Your task to perform on an android device: toggle data saver in the chrome app Image 0: 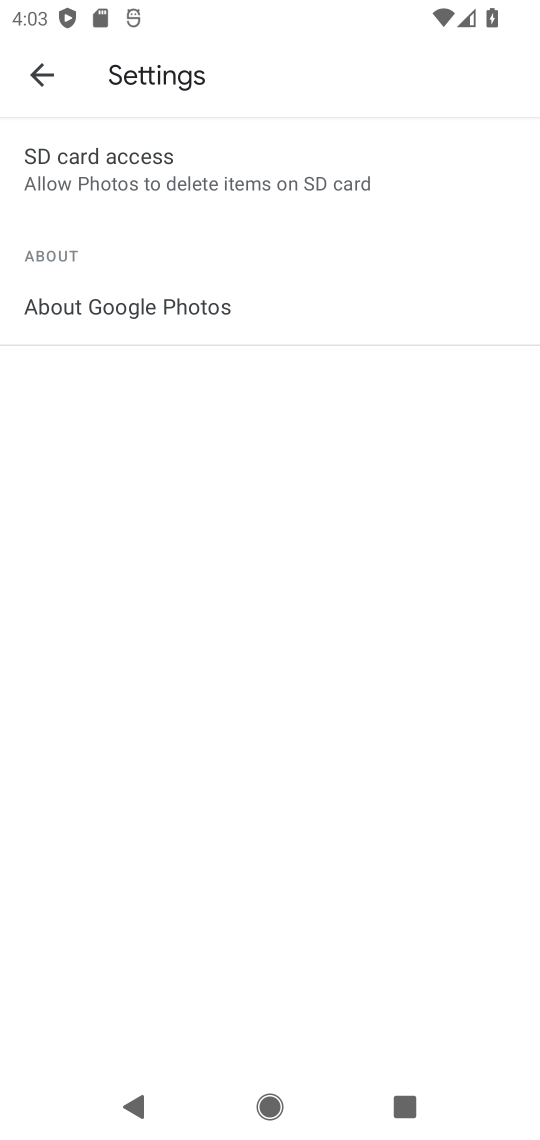
Step 0: press home button
Your task to perform on an android device: toggle data saver in the chrome app Image 1: 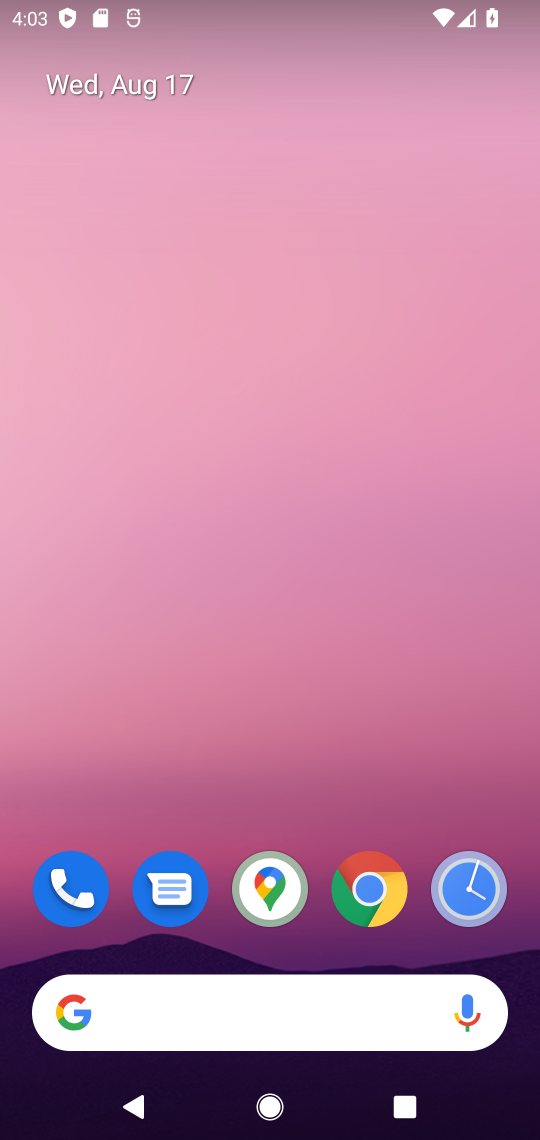
Step 1: click (373, 892)
Your task to perform on an android device: toggle data saver in the chrome app Image 2: 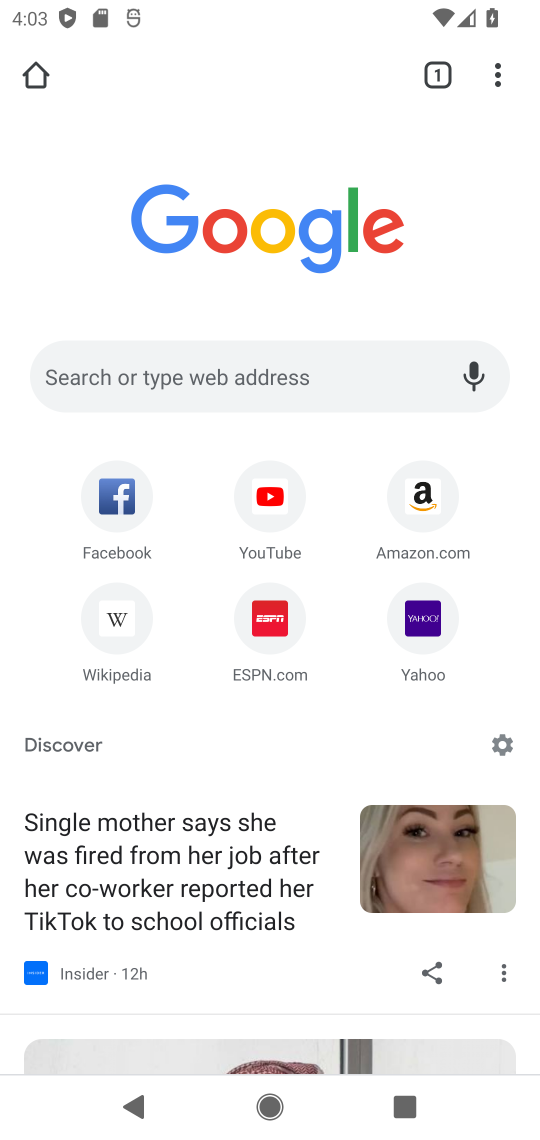
Step 2: click (500, 72)
Your task to perform on an android device: toggle data saver in the chrome app Image 3: 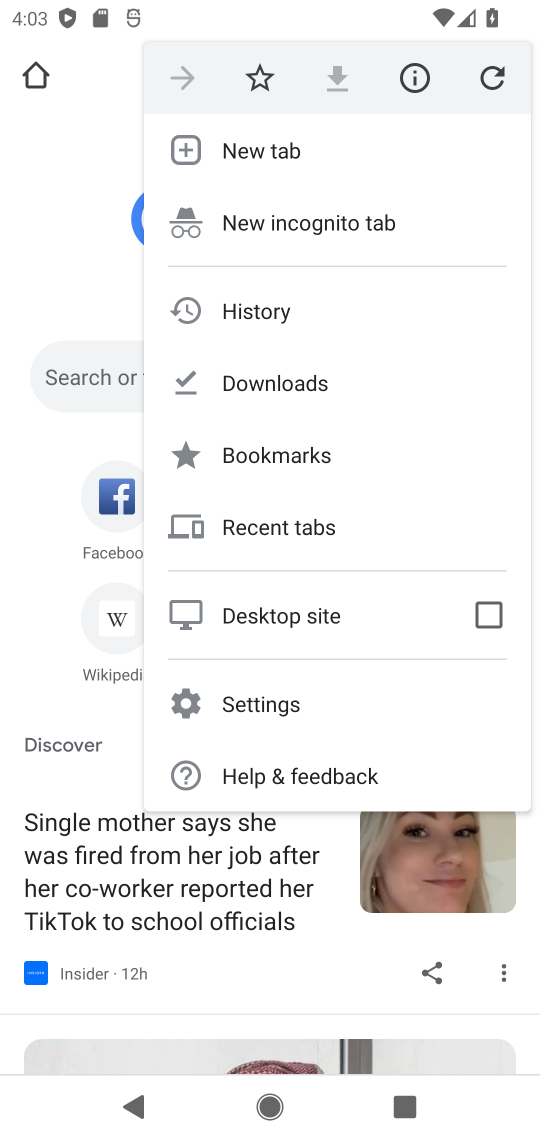
Step 3: click (266, 698)
Your task to perform on an android device: toggle data saver in the chrome app Image 4: 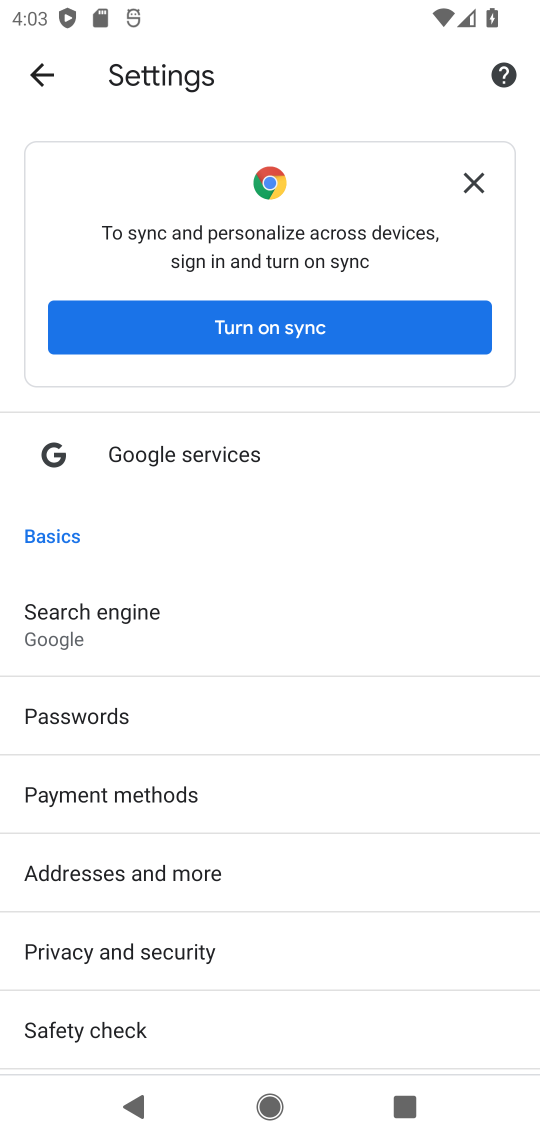
Step 4: drag from (294, 1034) to (235, 582)
Your task to perform on an android device: toggle data saver in the chrome app Image 5: 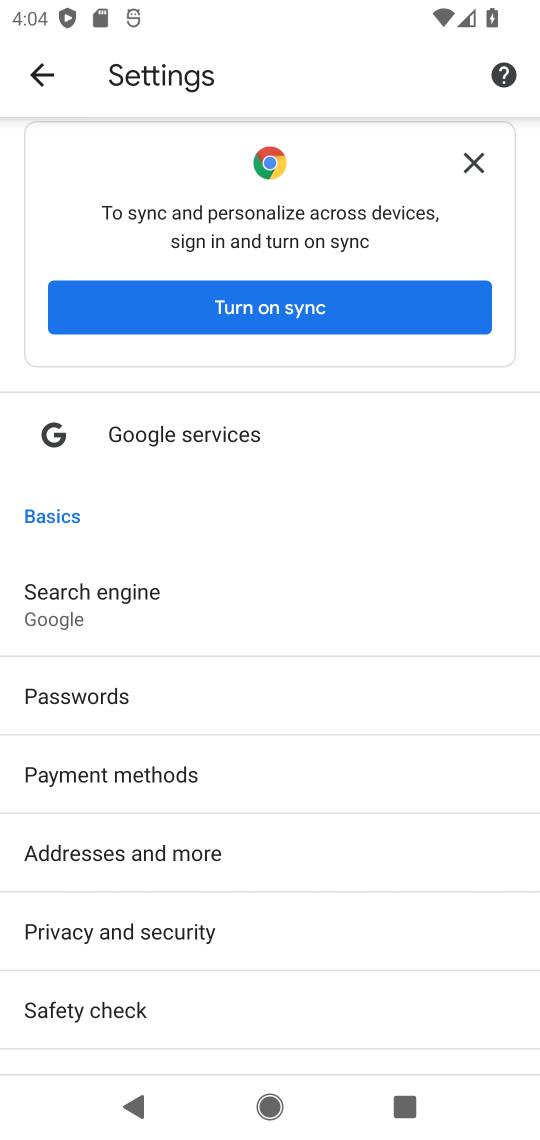
Step 5: drag from (341, 939) to (332, 322)
Your task to perform on an android device: toggle data saver in the chrome app Image 6: 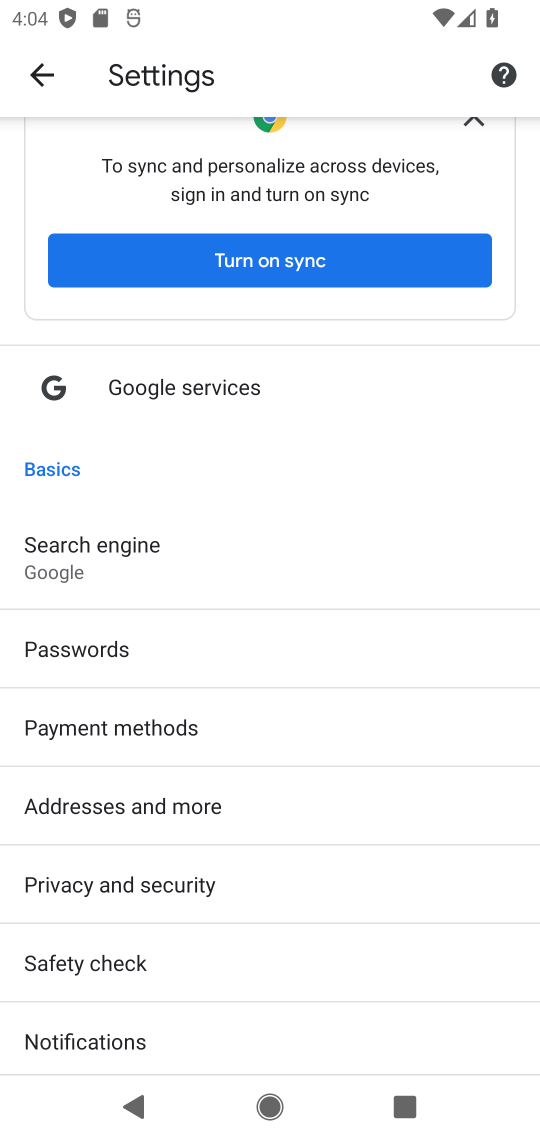
Step 6: drag from (257, 944) to (224, 315)
Your task to perform on an android device: toggle data saver in the chrome app Image 7: 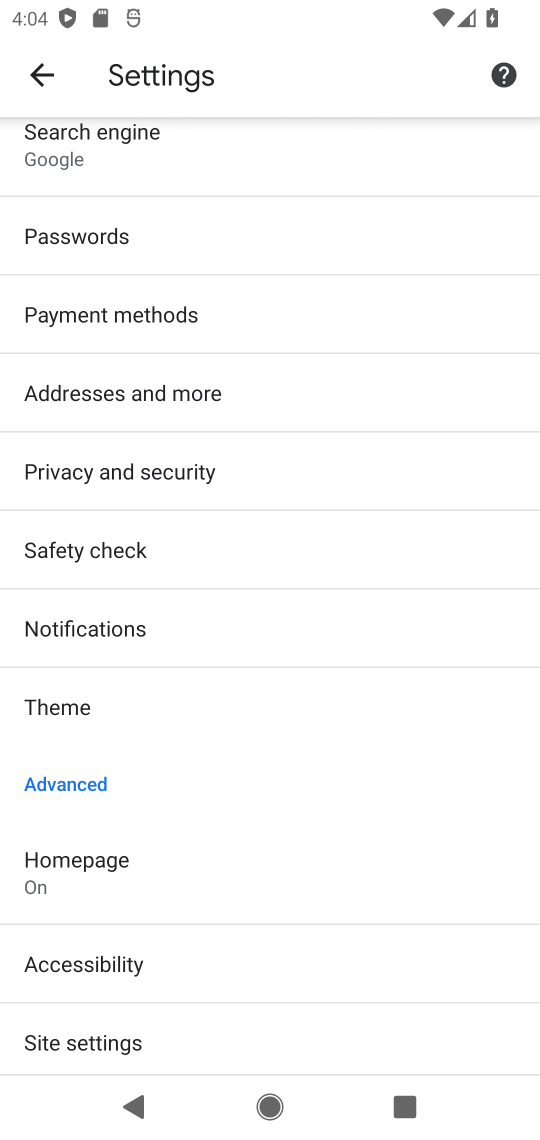
Step 7: drag from (233, 967) to (229, 333)
Your task to perform on an android device: toggle data saver in the chrome app Image 8: 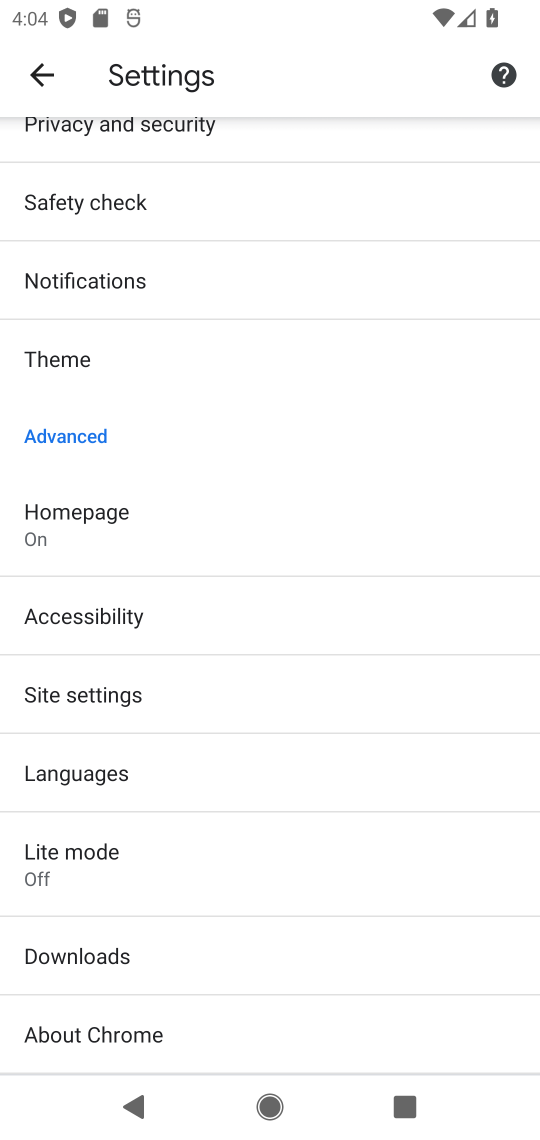
Step 8: click (63, 843)
Your task to perform on an android device: toggle data saver in the chrome app Image 9: 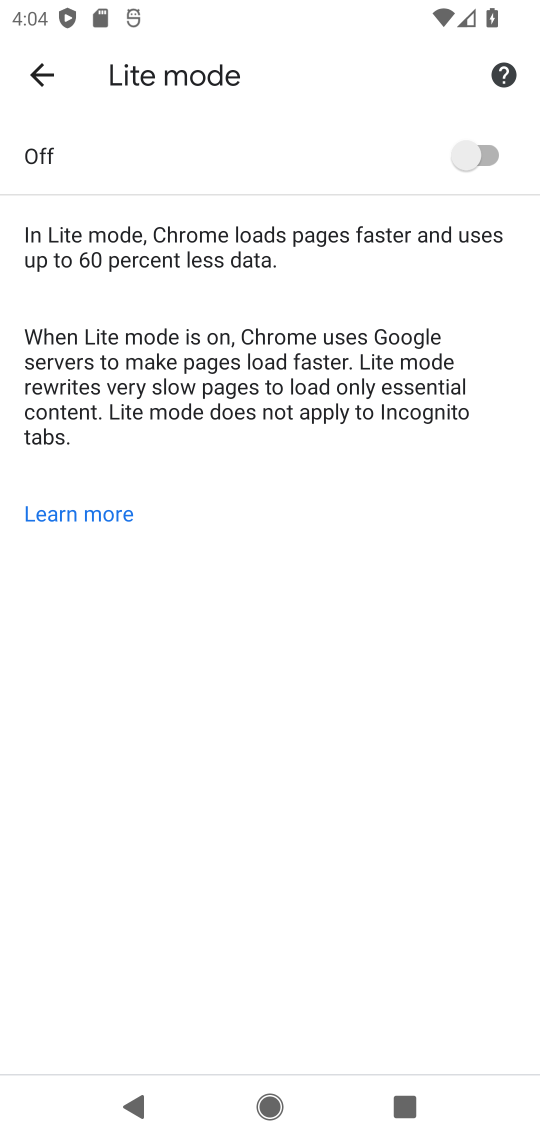
Step 9: click (467, 152)
Your task to perform on an android device: toggle data saver in the chrome app Image 10: 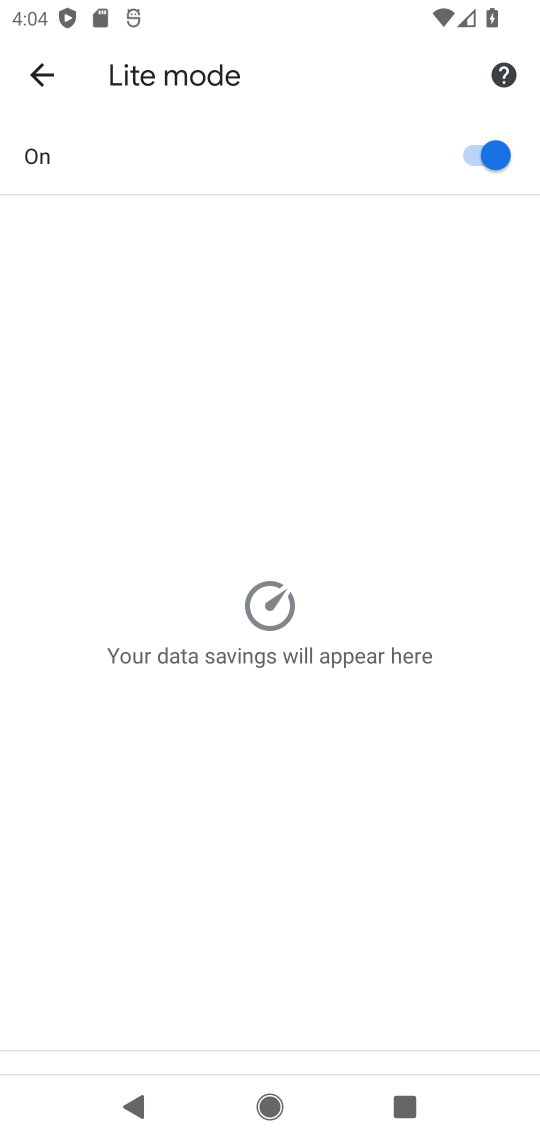
Step 10: task complete